Your task to perform on an android device: Go to Amazon Image 0: 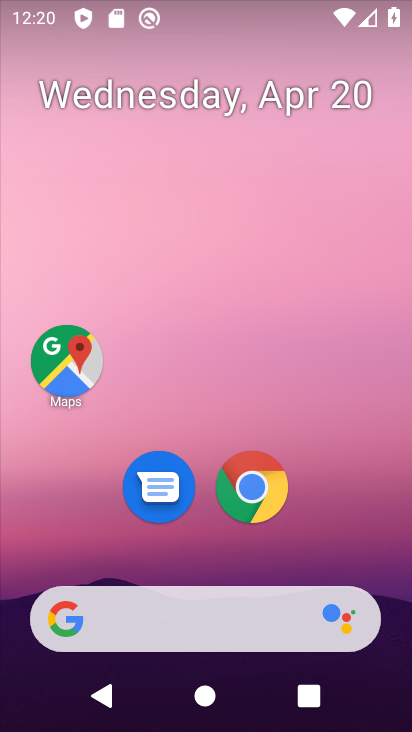
Step 0: click (250, 489)
Your task to perform on an android device: Go to Amazon Image 1: 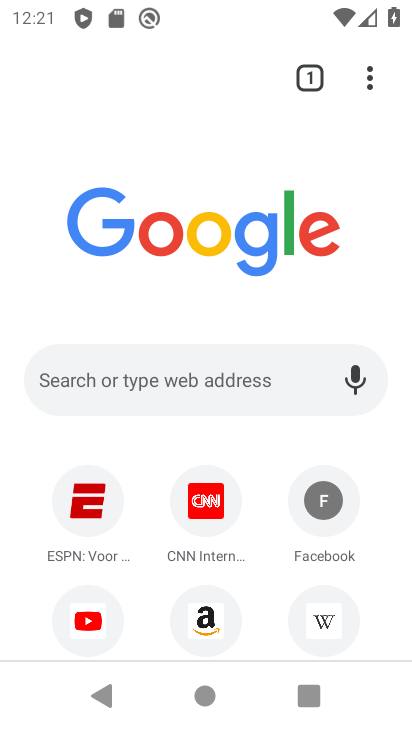
Step 1: click (190, 387)
Your task to perform on an android device: Go to Amazon Image 2: 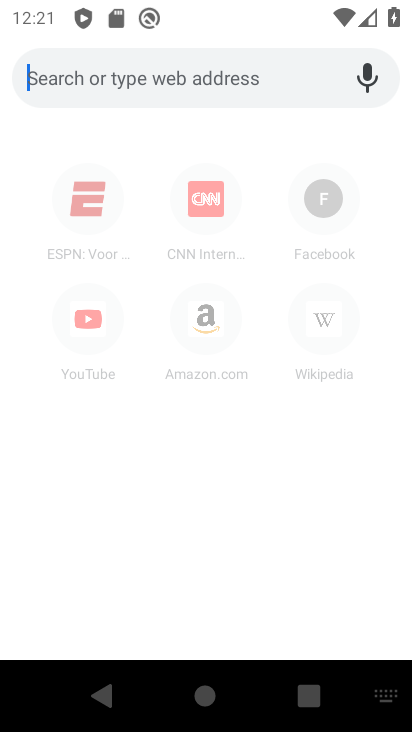
Step 2: type "amazon"
Your task to perform on an android device: Go to Amazon Image 3: 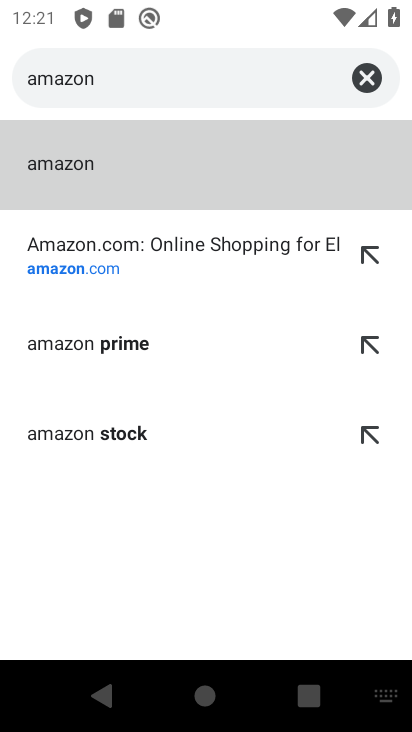
Step 3: click (147, 185)
Your task to perform on an android device: Go to Amazon Image 4: 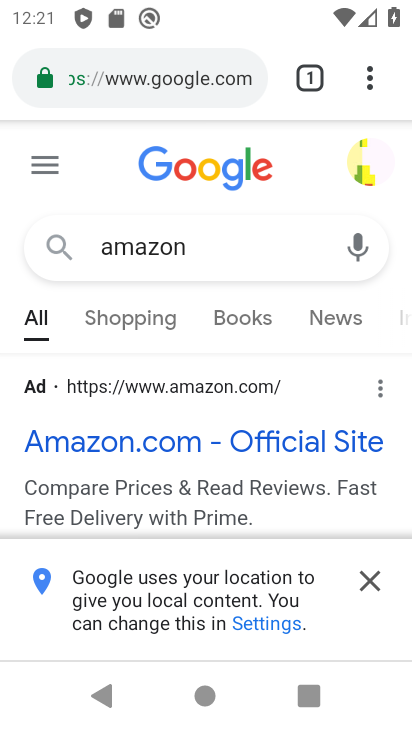
Step 4: click (158, 442)
Your task to perform on an android device: Go to Amazon Image 5: 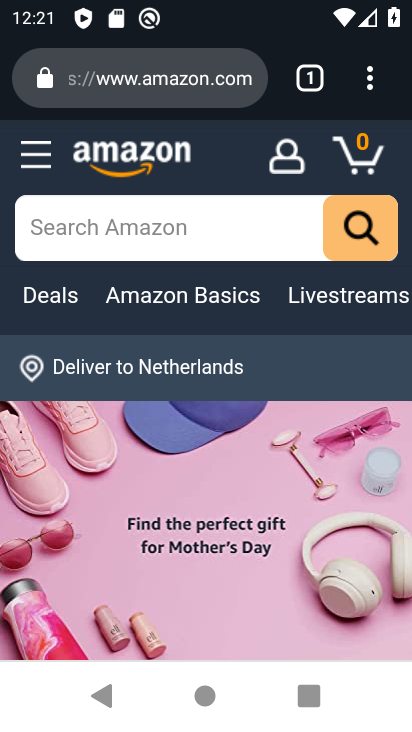
Step 5: task complete